Your task to perform on an android device: Open Chrome and go to the settings page Image 0: 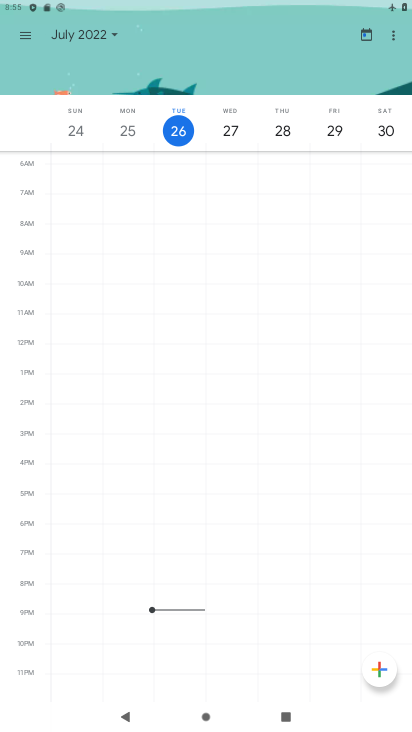
Step 0: press home button
Your task to perform on an android device: Open Chrome and go to the settings page Image 1: 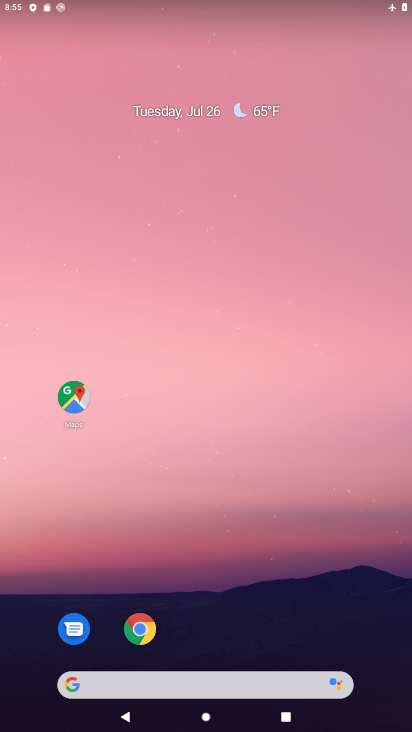
Step 1: click (136, 631)
Your task to perform on an android device: Open Chrome and go to the settings page Image 2: 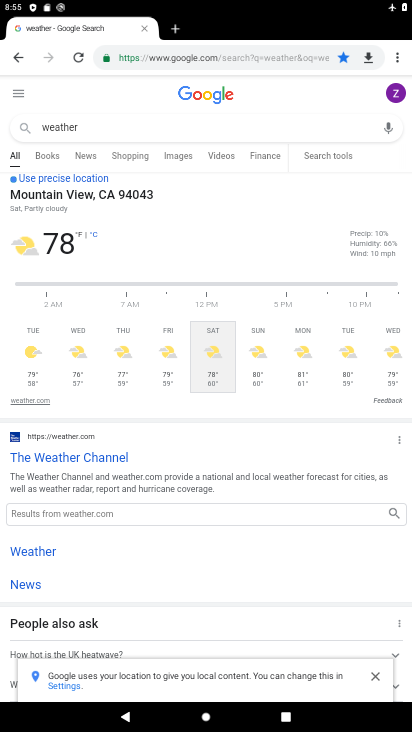
Step 2: task complete